Your task to perform on an android device: change the clock display to show seconds Image 0: 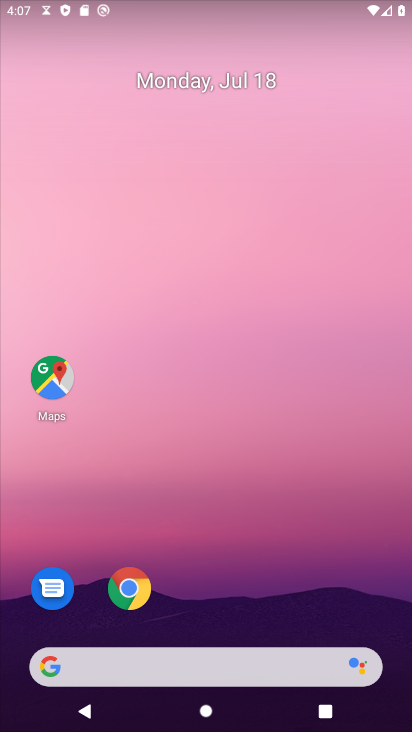
Step 0: drag from (34, 698) to (157, 216)
Your task to perform on an android device: change the clock display to show seconds Image 1: 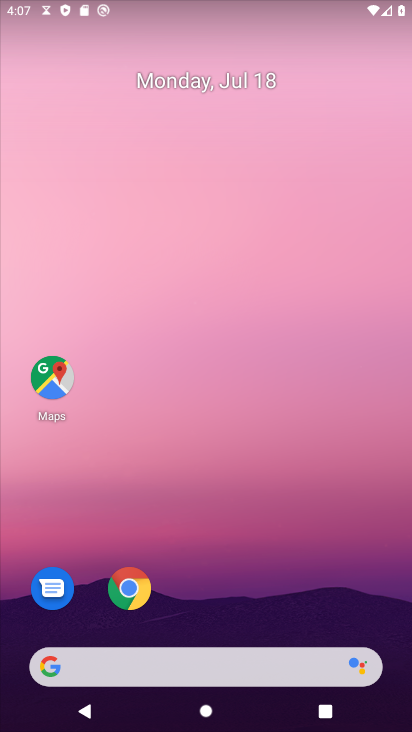
Step 1: drag from (78, 672) to (270, 187)
Your task to perform on an android device: change the clock display to show seconds Image 2: 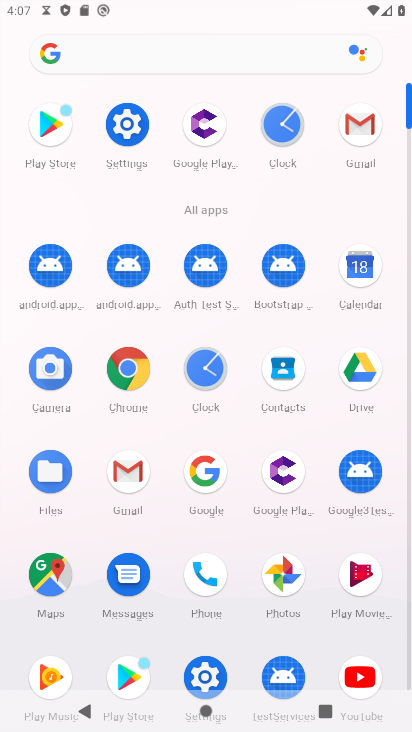
Step 2: click (202, 676)
Your task to perform on an android device: change the clock display to show seconds Image 3: 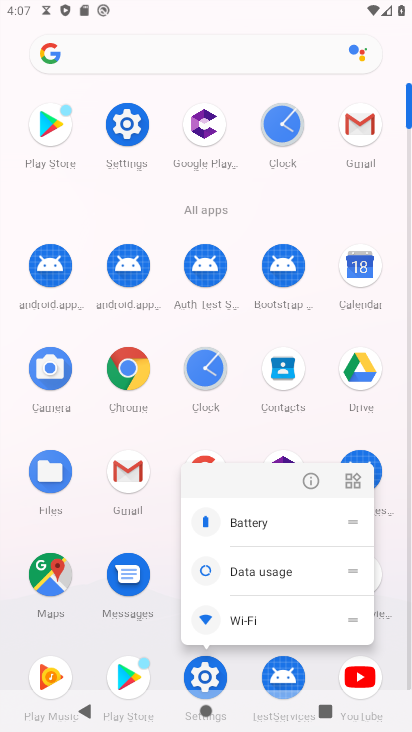
Step 3: click (210, 668)
Your task to perform on an android device: change the clock display to show seconds Image 4: 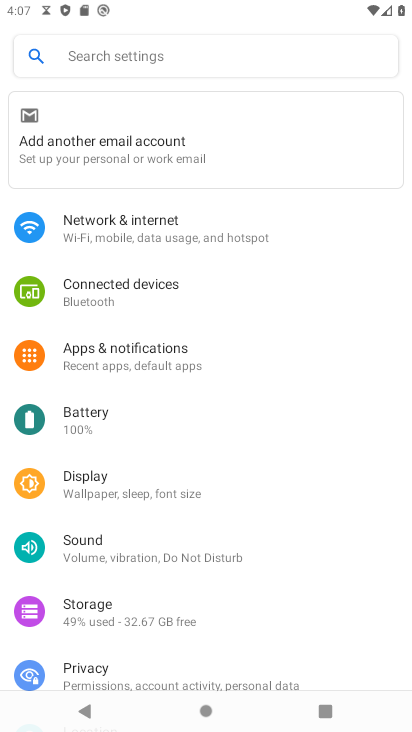
Step 4: task complete